Your task to perform on an android device: remove spam from my inbox in the gmail app Image 0: 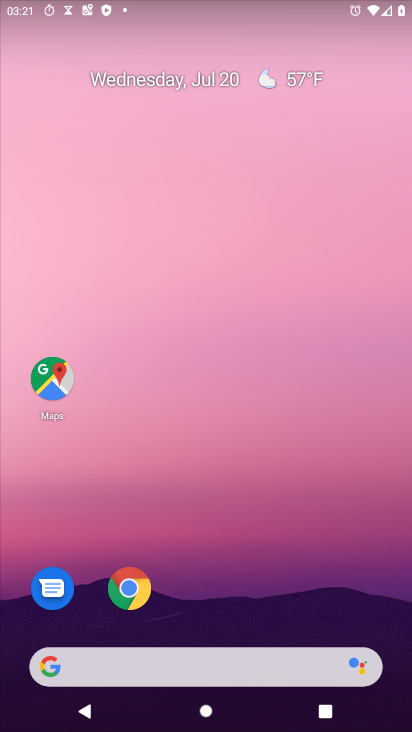
Step 0: drag from (334, 664) to (273, 1)
Your task to perform on an android device: remove spam from my inbox in the gmail app Image 1: 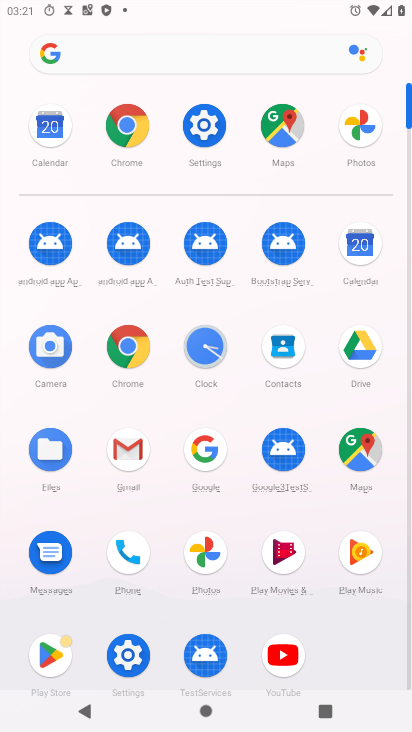
Step 1: click (129, 447)
Your task to perform on an android device: remove spam from my inbox in the gmail app Image 2: 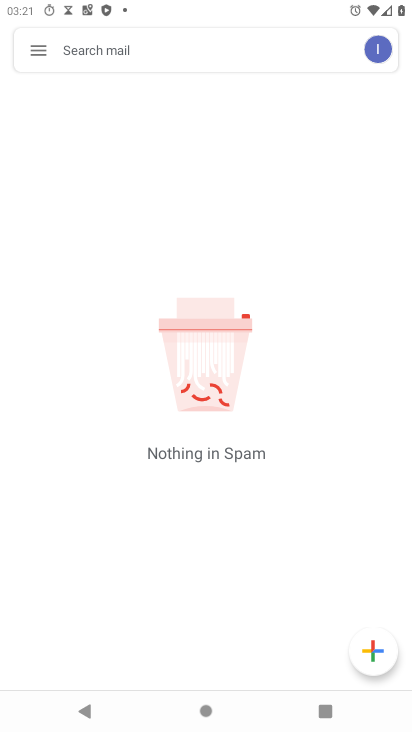
Step 2: click (41, 46)
Your task to perform on an android device: remove spam from my inbox in the gmail app Image 3: 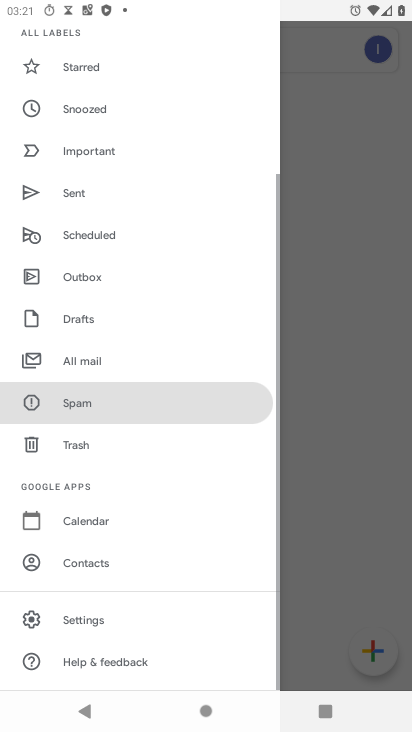
Step 3: click (96, 410)
Your task to perform on an android device: remove spam from my inbox in the gmail app Image 4: 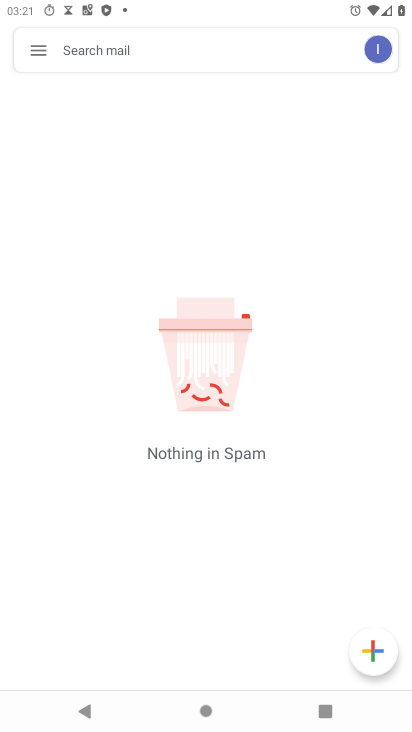
Step 4: task complete